Your task to perform on an android device: Go to Google Image 0: 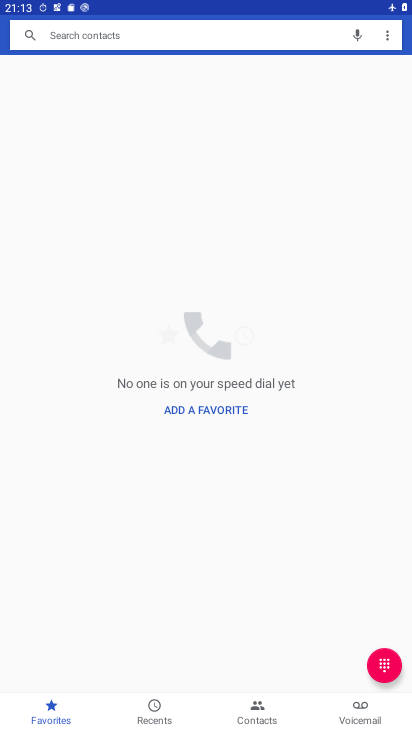
Step 0: click (394, 712)
Your task to perform on an android device: Go to Google Image 1: 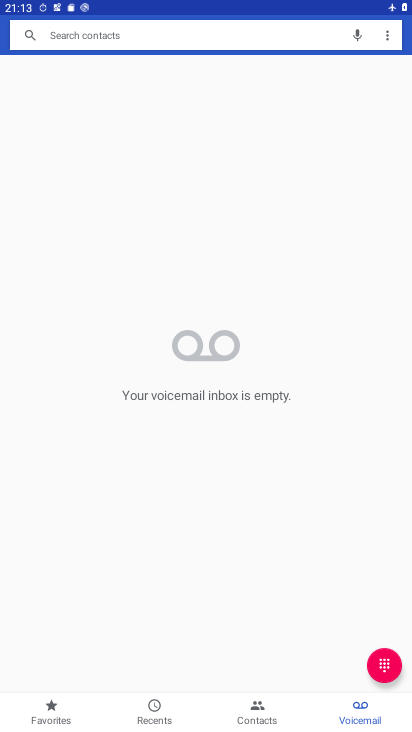
Step 1: press home button
Your task to perform on an android device: Go to Google Image 2: 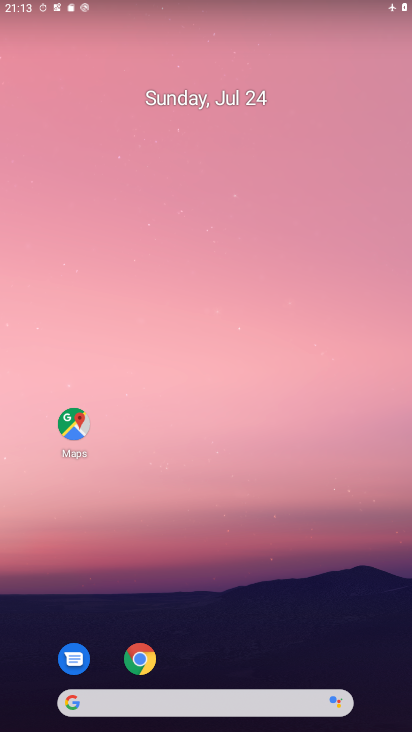
Step 2: drag from (231, 725) to (205, 189)
Your task to perform on an android device: Go to Google Image 3: 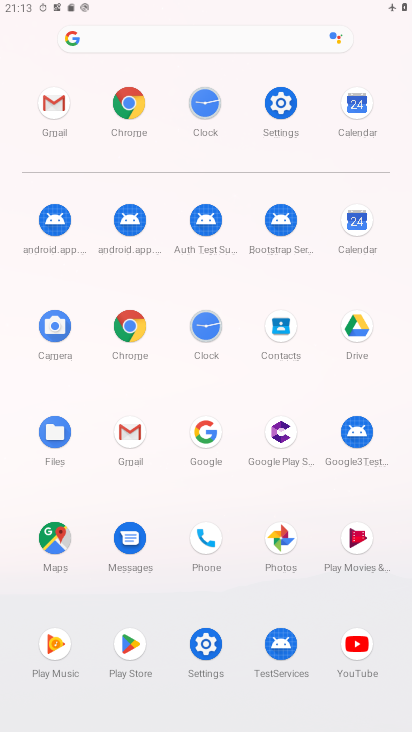
Step 3: click (206, 431)
Your task to perform on an android device: Go to Google Image 4: 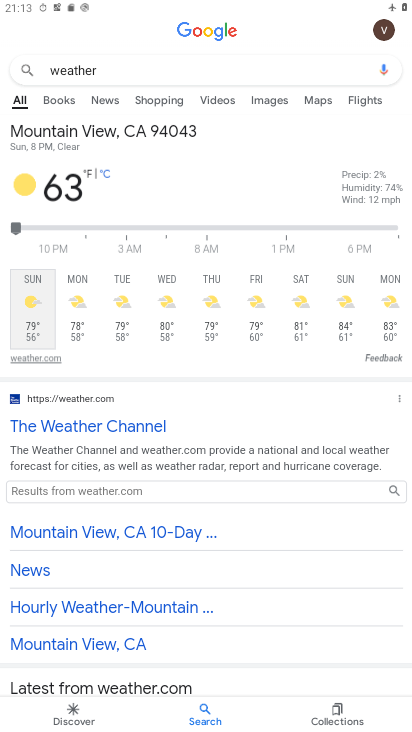
Step 4: task complete